Your task to perform on an android device: turn on priority inbox in the gmail app Image 0: 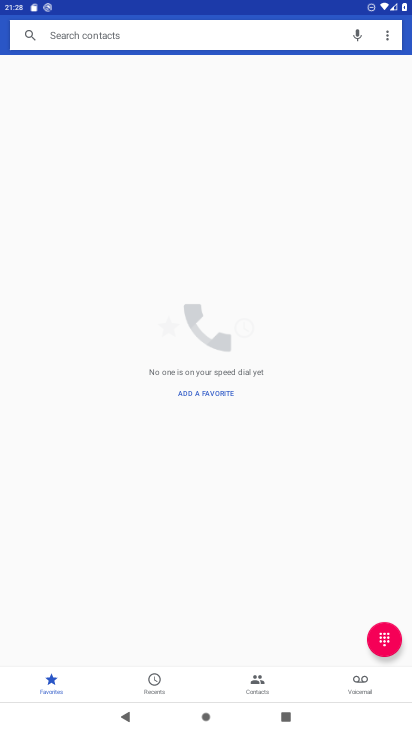
Step 0: press home button
Your task to perform on an android device: turn on priority inbox in the gmail app Image 1: 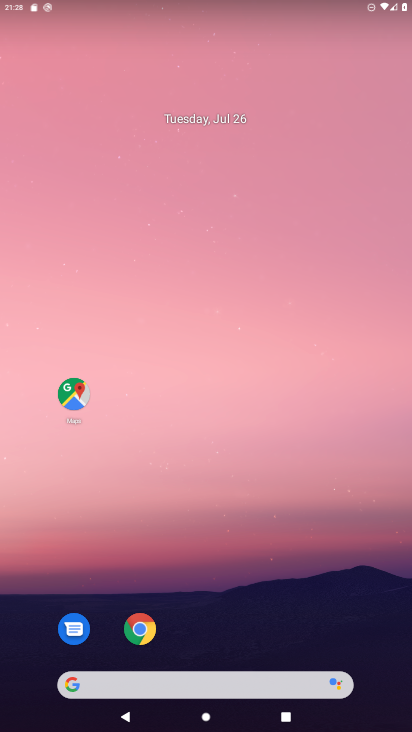
Step 1: drag from (257, 626) to (237, 356)
Your task to perform on an android device: turn on priority inbox in the gmail app Image 2: 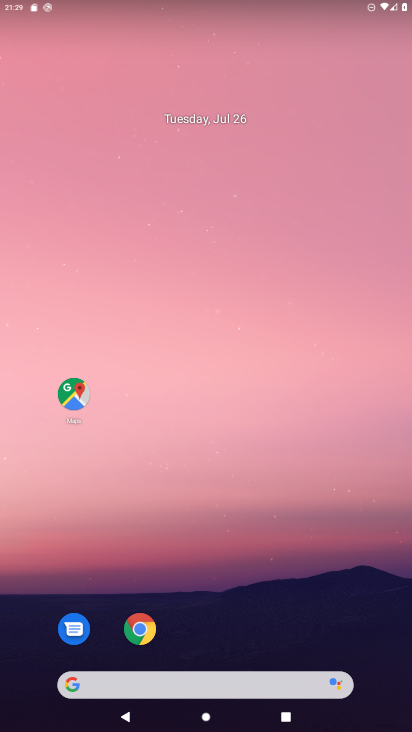
Step 2: drag from (233, 631) to (184, 225)
Your task to perform on an android device: turn on priority inbox in the gmail app Image 3: 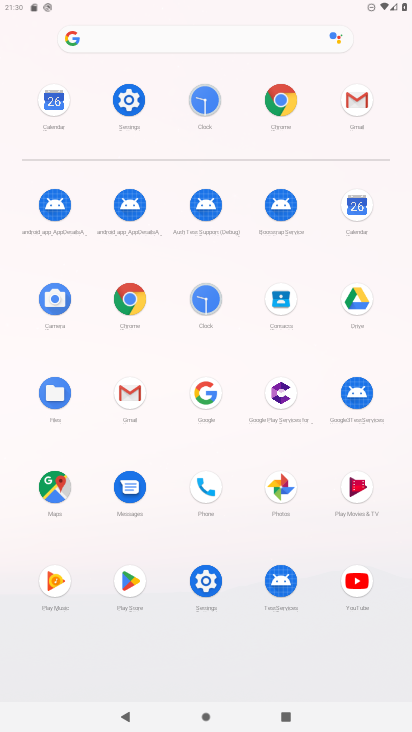
Step 3: click (138, 395)
Your task to perform on an android device: turn on priority inbox in the gmail app Image 4: 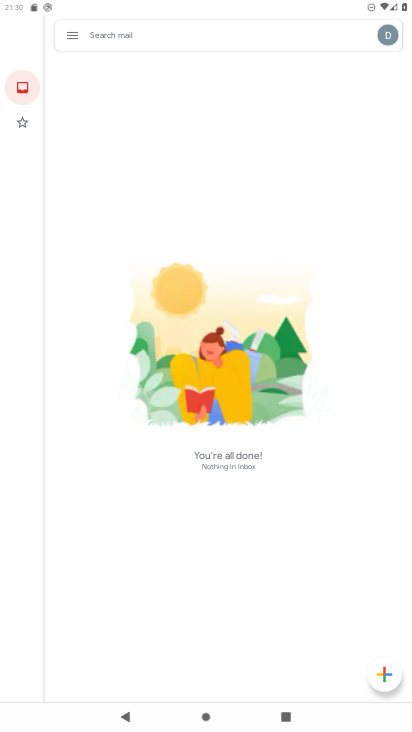
Step 4: click (78, 45)
Your task to perform on an android device: turn on priority inbox in the gmail app Image 5: 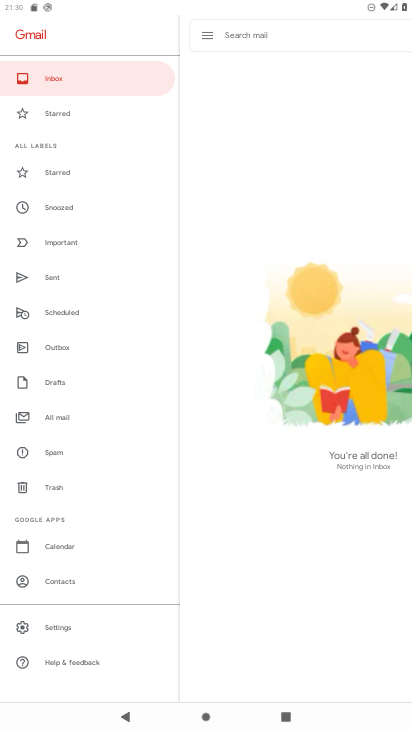
Step 5: click (70, 629)
Your task to perform on an android device: turn on priority inbox in the gmail app Image 6: 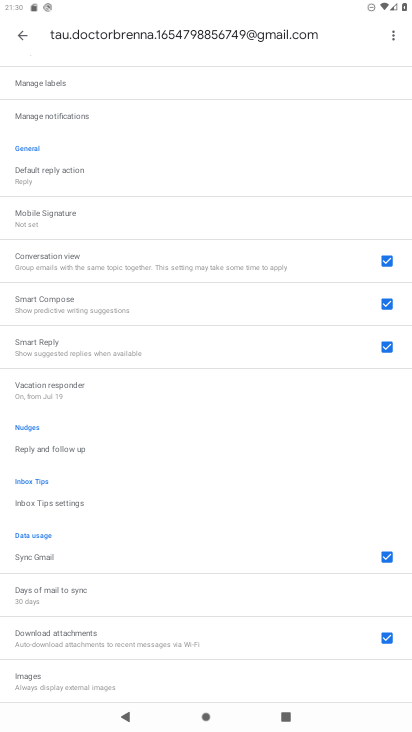
Step 6: drag from (61, 127) to (89, 631)
Your task to perform on an android device: turn on priority inbox in the gmail app Image 7: 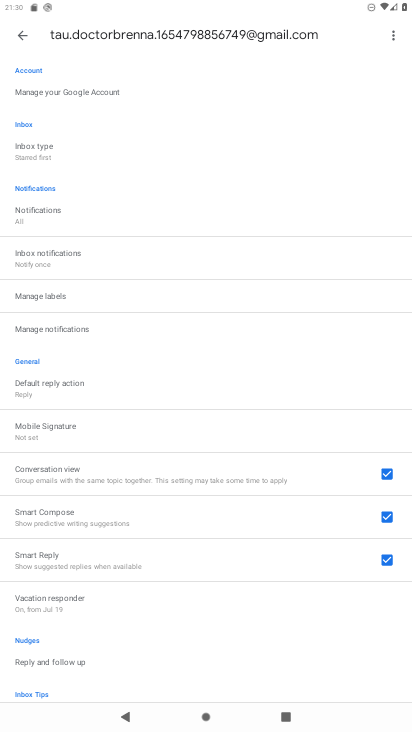
Step 7: click (30, 169)
Your task to perform on an android device: turn on priority inbox in the gmail app Image 8: 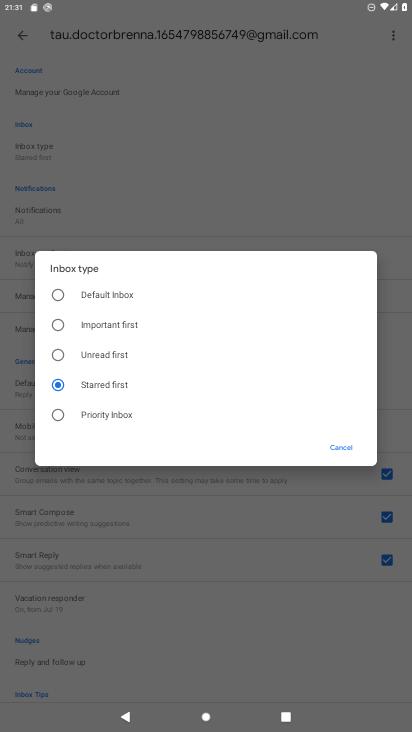
Step 8: click (143, 414)
Your task to perform on an android device: turn on priority inbox in the gmail app Image 9: 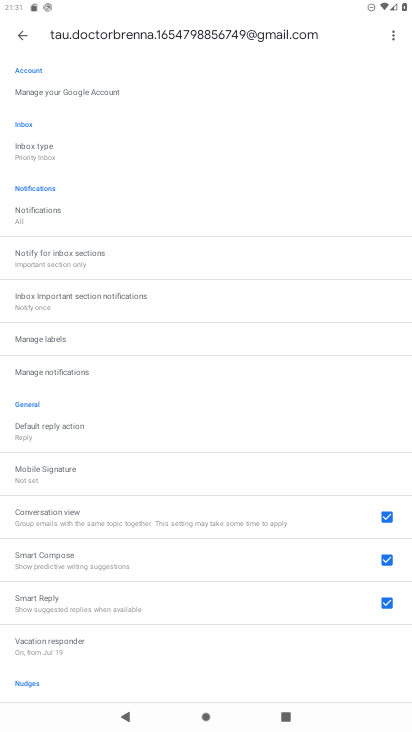
Step 9: task complete